Your task to perform on an android device: Search for "macbook" on target, select the first entry, add it to the cart, then select checkout. Image 0: 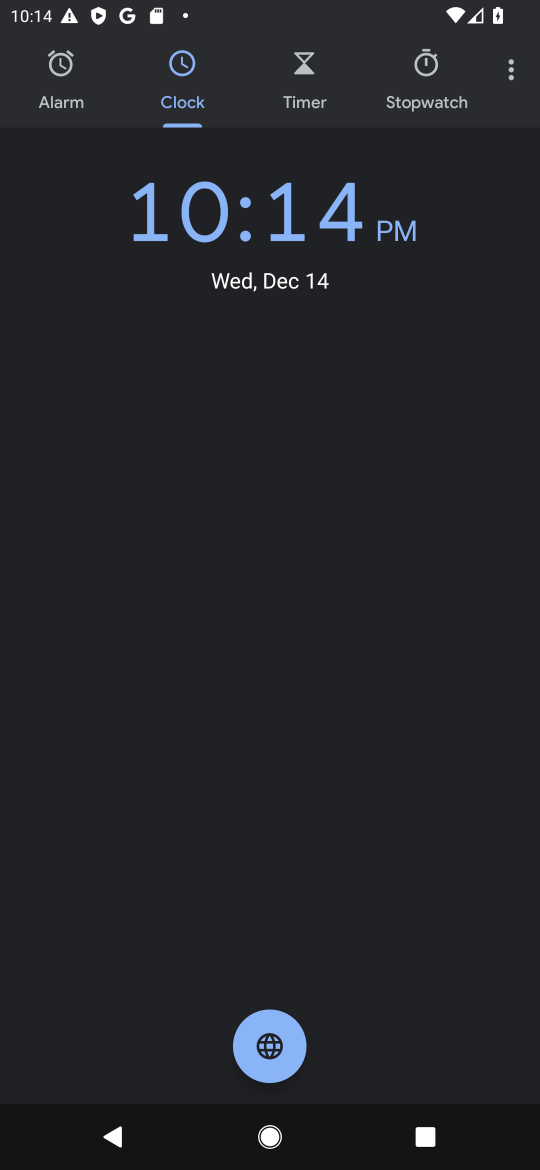
Step 0: task complete